Your task to perform on an android device: toggle wifi Image 0: 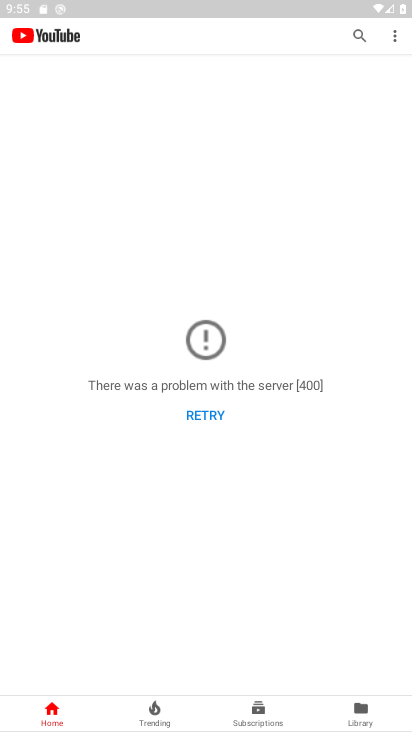
Step 0: press home button
Your task to perform on an android device: toggle wifi Image 1: 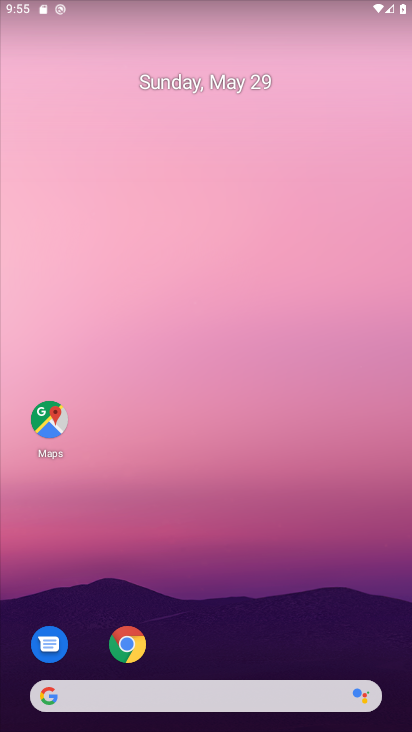
Step 1: drag from (130, 12) to (144, 542)
Your task to perform on an android device: toggle wifi Image 2: 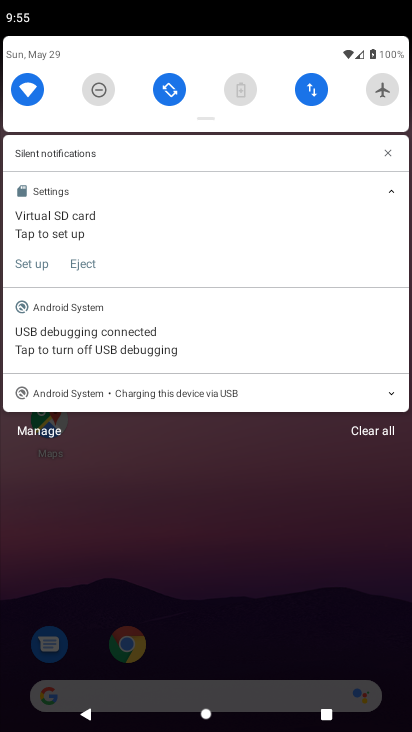
Step 2: click (25, 97)
Your task to perform on an android device: toggle wifi Image 3: 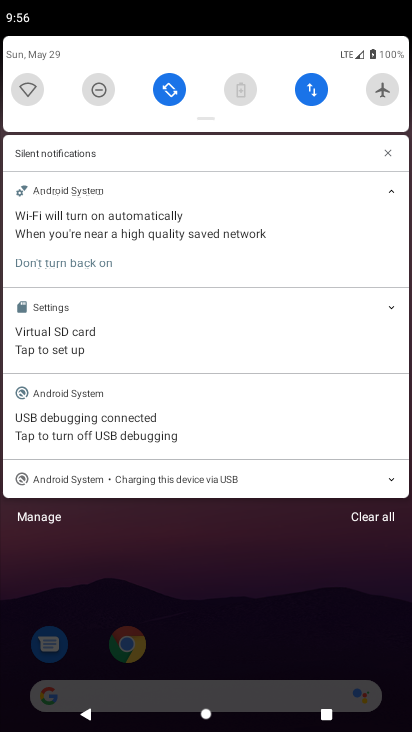
Step 3: task complete